Your task to perform on an android device: clear history in the chrome app Image 0: 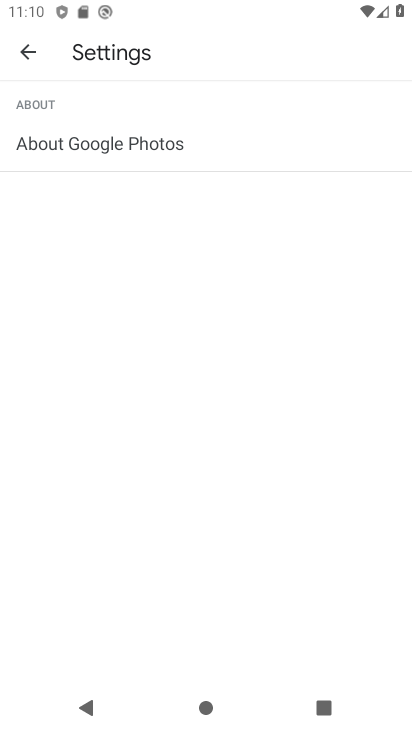
Step 0: press home button
Your task to perform on an android device: clear history in the chrome app Image 1: 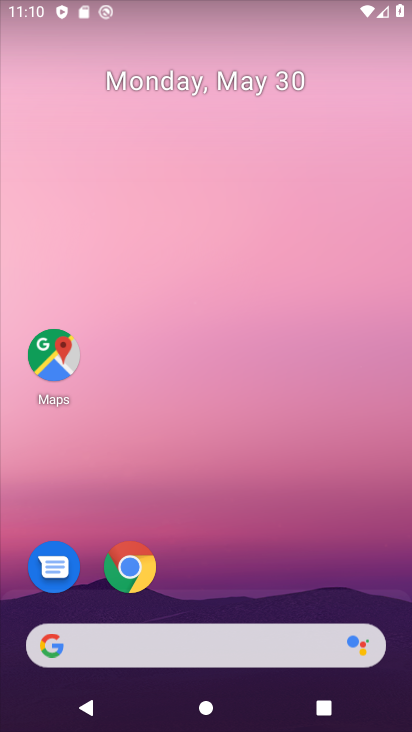
Step 1: drag from (400, 583) to (363, 105)
Your task to perform on an android device: clear history in the chrome app Image 2: 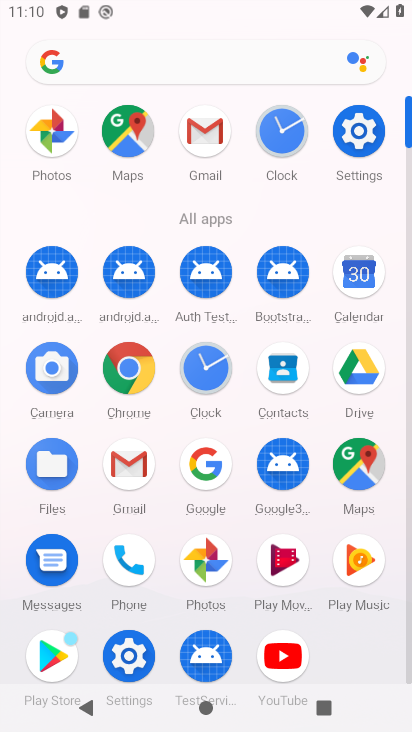
Step 2: click (141, 385)
Your task to perform on an android device: clear history in the chrome app Image 3: 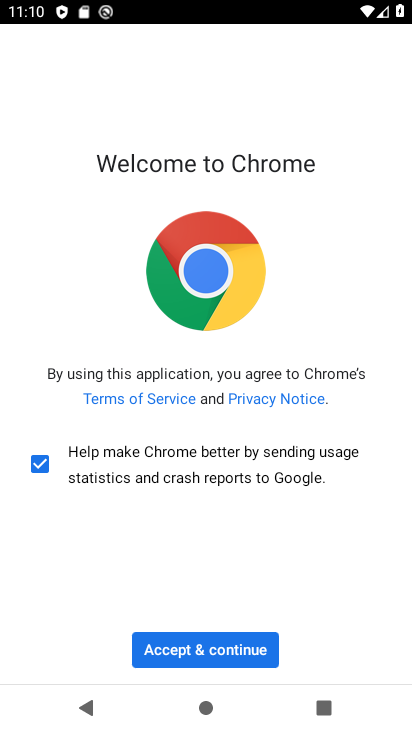
Step 3: click (245, 658)
Your task to perform on an android device: clear history in the chrome app Image 4: 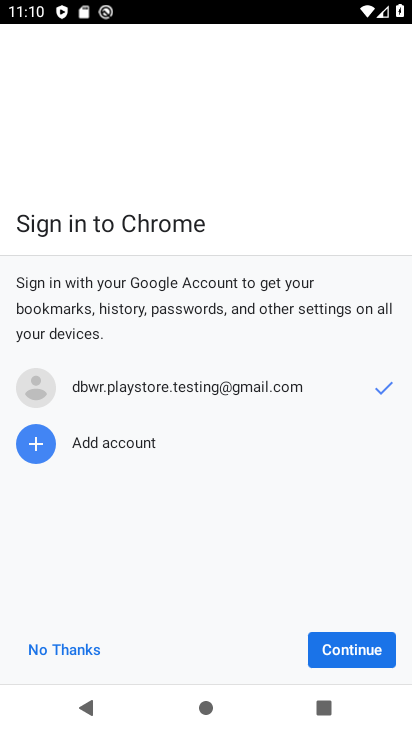
Step 4: click (329, 651)
Your task to perform on an android device: clear history in the chrome app Image 5: 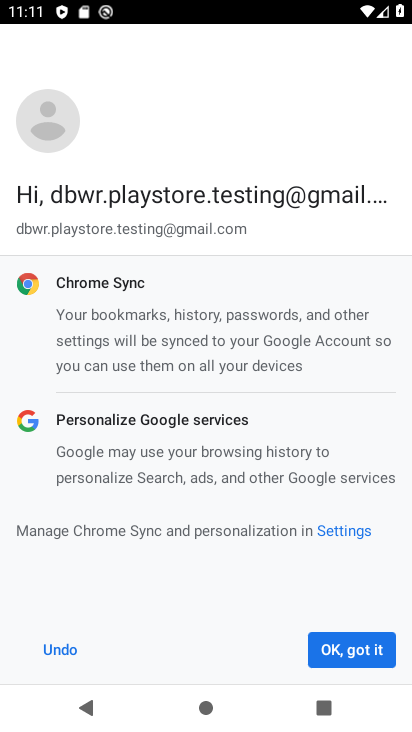
Step 5: click (331, 650)
Your task to perform on an android device: clear history in the chrome app Image 6: 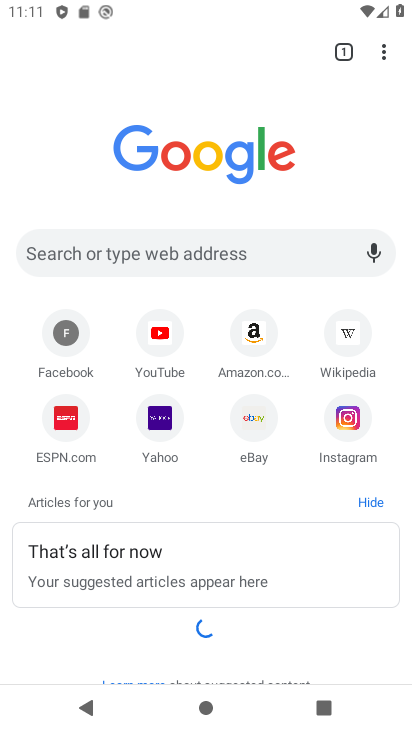
Step 6: task complete